Your task to perform on an android device: Open notification settings Image 0: 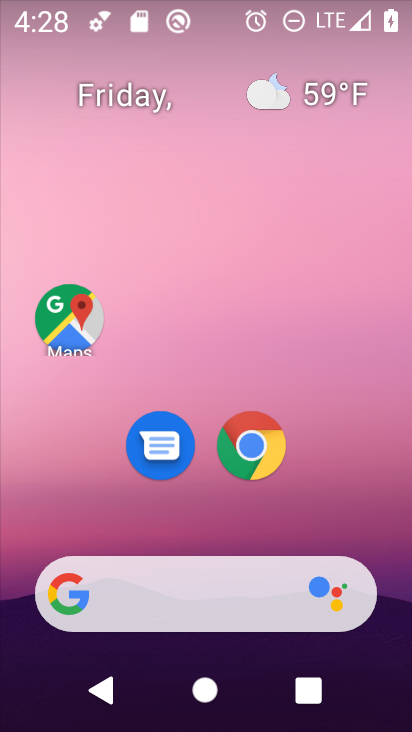
Step 0: drag from (391, 599) to (365, 157)
Your task to perform on an android device: Open notification settings Image 1: 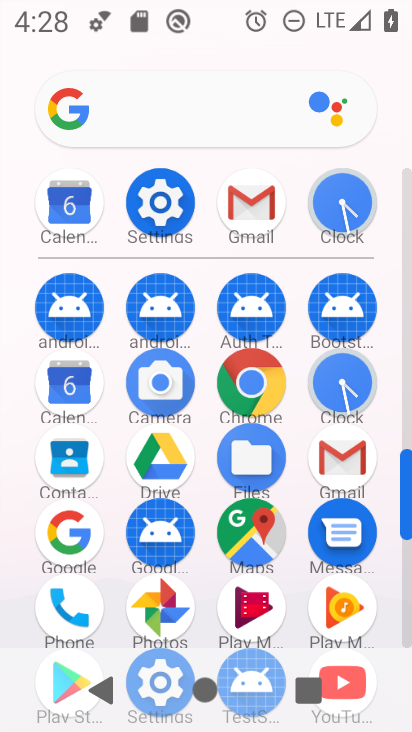
Step 1: click (409, 633)
Your task to perform on an android device: Open notification settings Image 2: 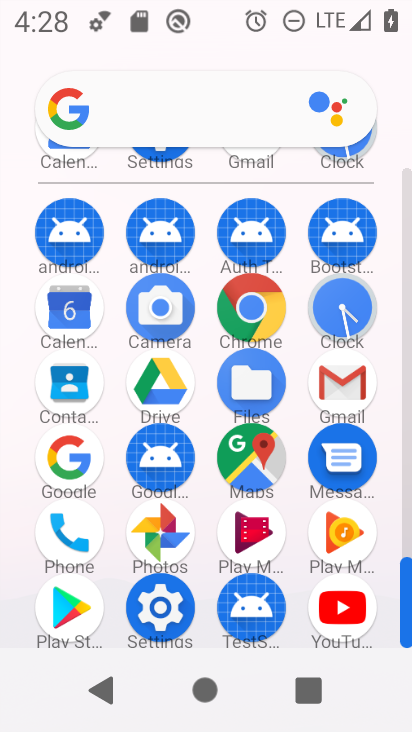
Step 2: click (159, 603)
Your task to perform on an android device: Open notification settings Image 3: 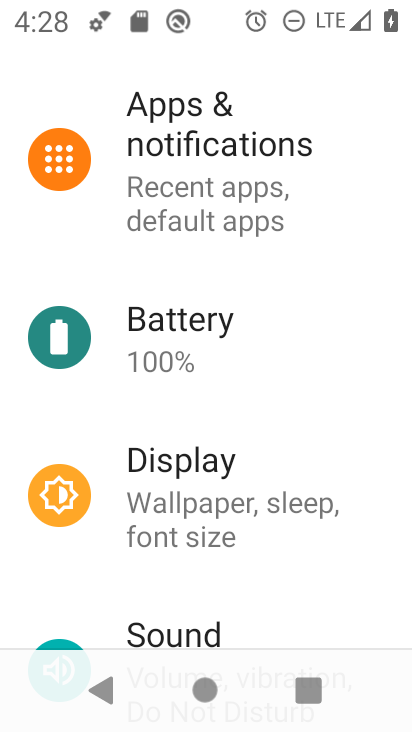
Step 3: click (181, 155)
Your task to perform on an android device: Open notification settings Image 4: 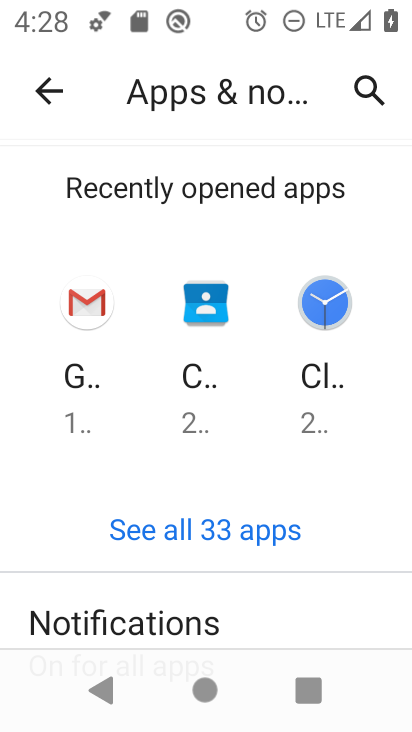
Step 4: drag from (245, 585) to (307, 214)
Your task to perform on an android device: Open notification settings Image 5: 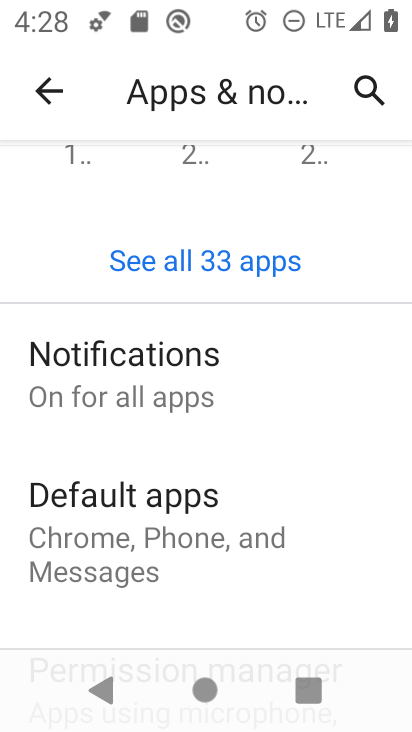
Step 5: click (107, 377)
Your task to perform on an android device: Open notification settings Image 6: 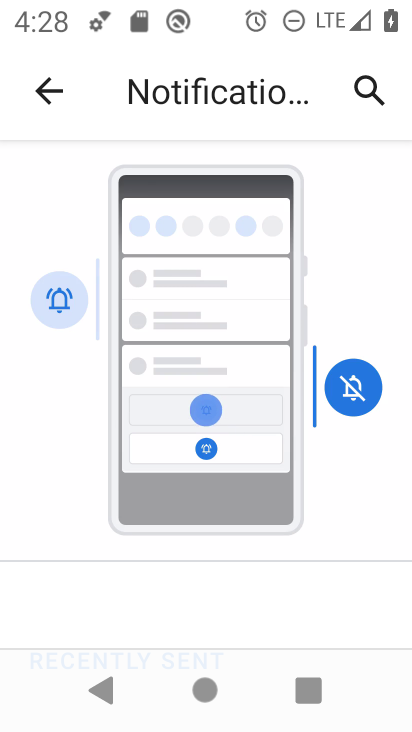
Step 6: drag from (268, 611) to (269, 161)
Your task to perform on an android device: Open notification settings Image 7: 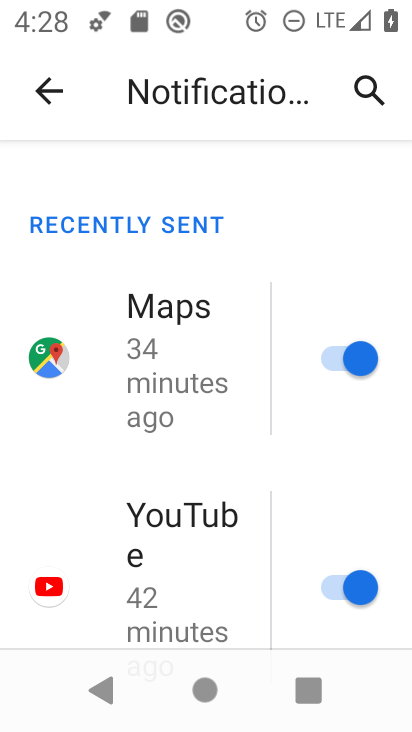
Step 7: drag from (246, 507) to (239, 25)
Your task to perform on an android device: Open notification settings Image 8: 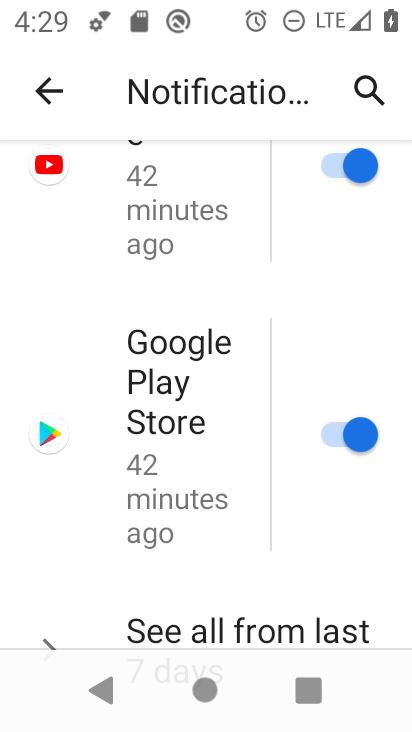
Step 8: drag from (268, 577) to (261, 131)
Your task to perform on an android device: Open notification settings Image 9: 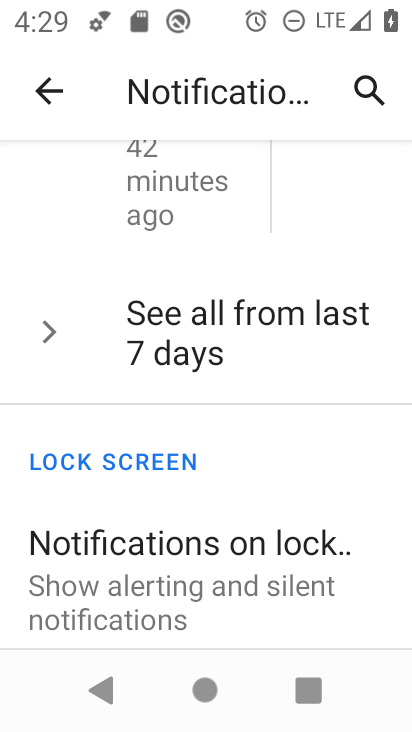
Step 9: drag from (259, 566) to (228, 174)
Your task to perform on an android device: Open notification settings Image 10: 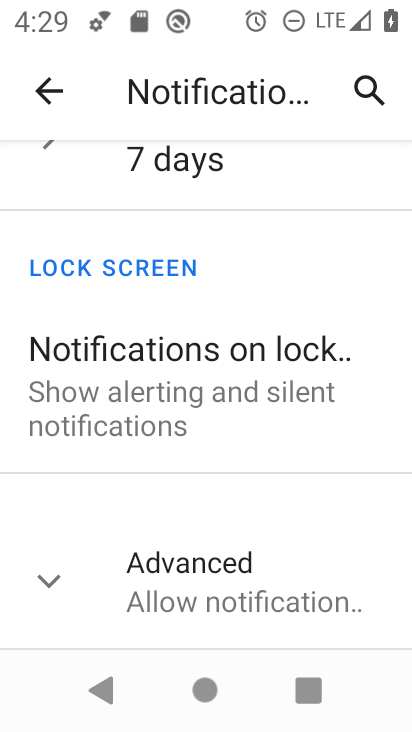
Step 10: click (53, 558)
Your task to perform on an android device: Open notification settings Image 11: 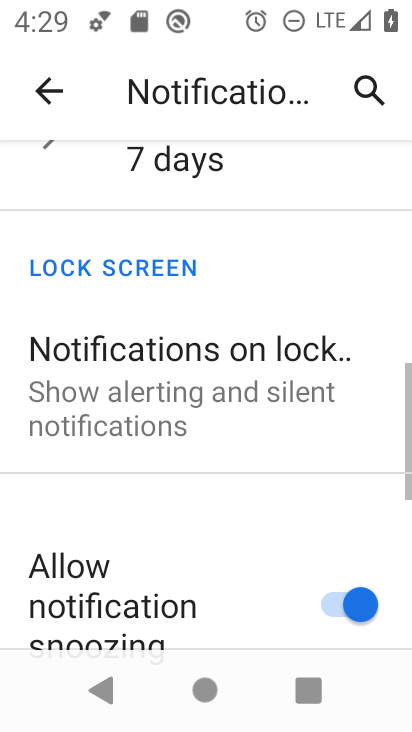
Step 11: task complete